Your task to perform on an android device: uninstall "Google Calendar" Image 0: 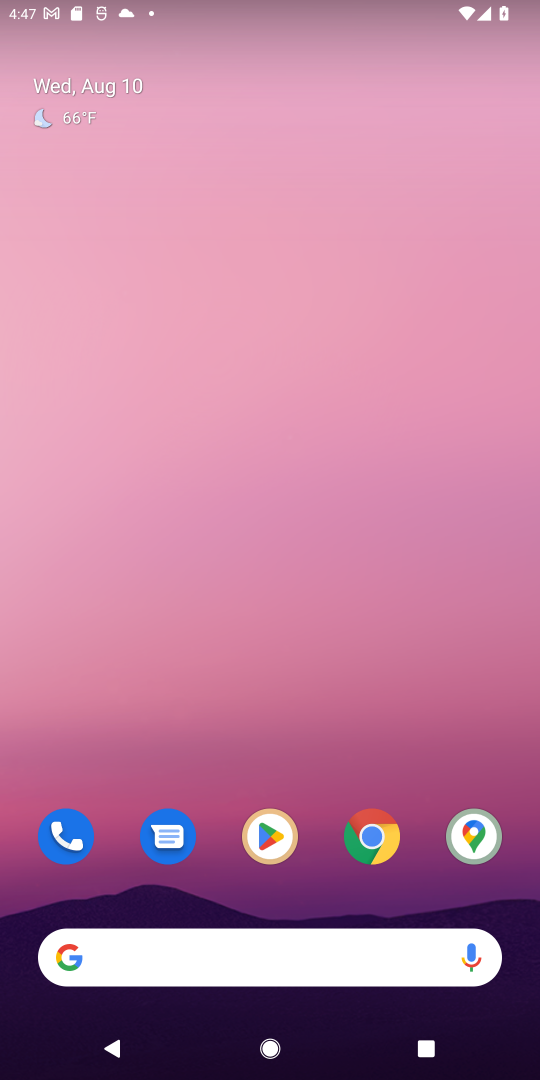
Step 0: drag from (304, 882) to (310, 220)
Your task to perform on an android device: uninstall "Google Calendar" Image 1: 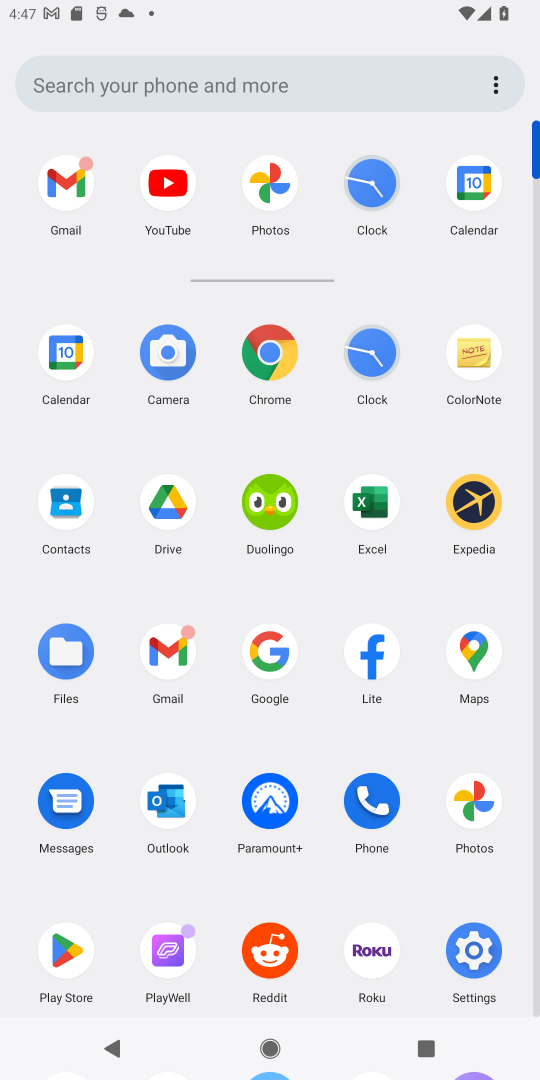
Step 1: click (74, 938)
Your task to perform on an android device: uninstall "Google Calendar" Image 2: 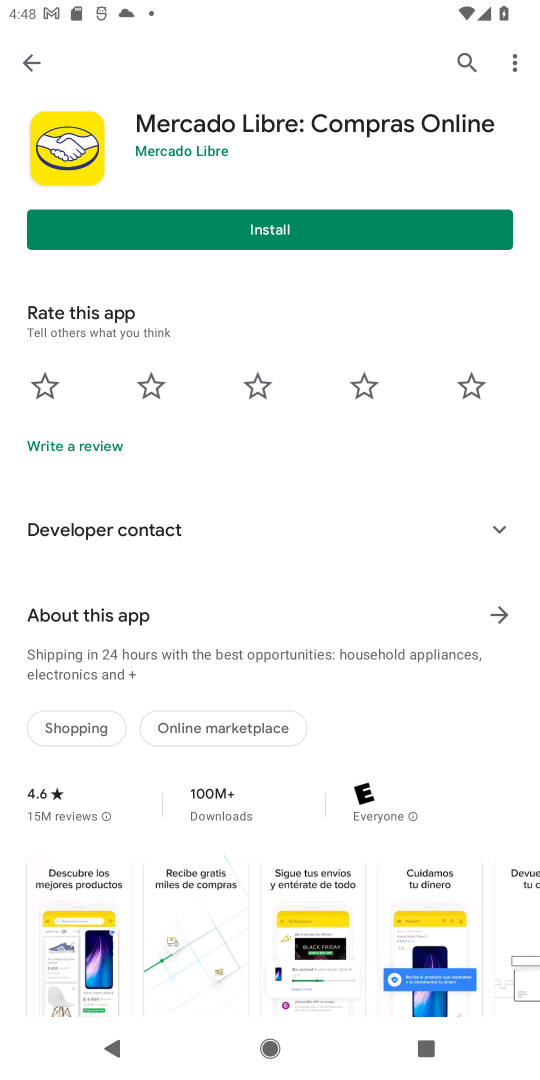
Step 2: click (35, 62)
Your task to perform on an android device: uninstall "Google Calendar" Image 3: 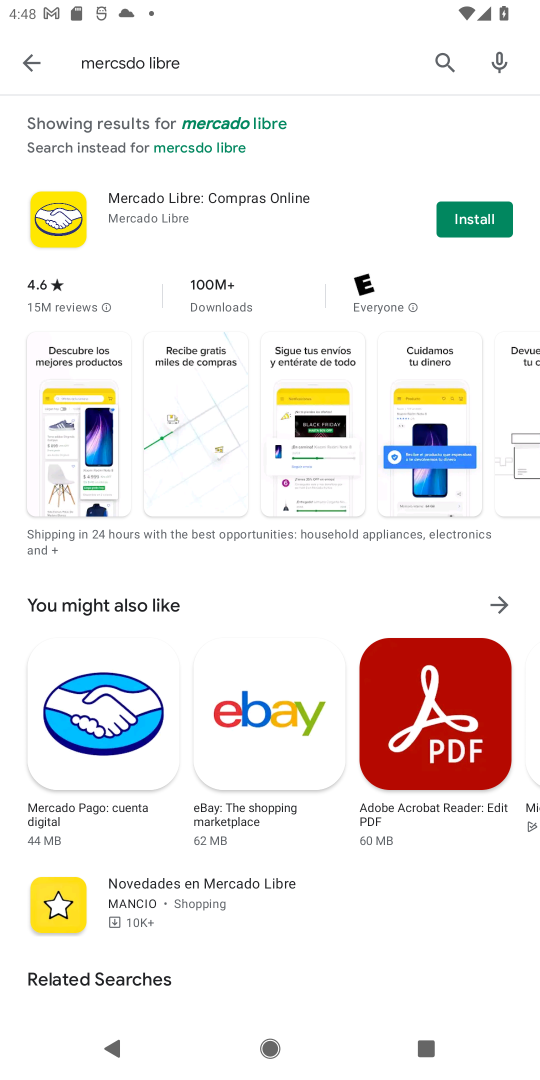
Step 3: click (39, 41)
Your task to perform on an android device: uninstall "Google Calendar" Image 4: 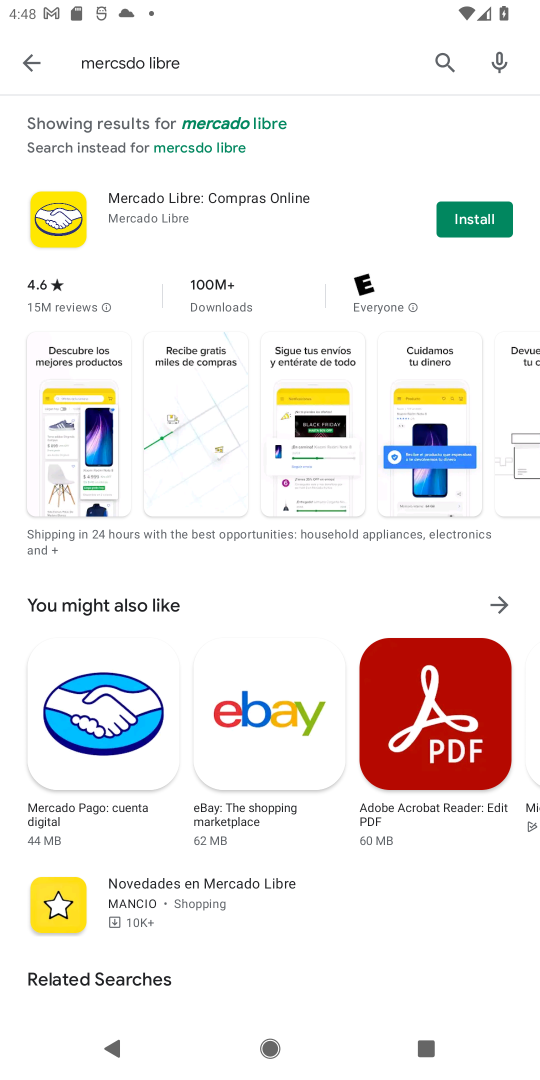
Step 4: click (49, 52)
Your task to perform on an android device: uninstall "Google Calendar" Image 5: 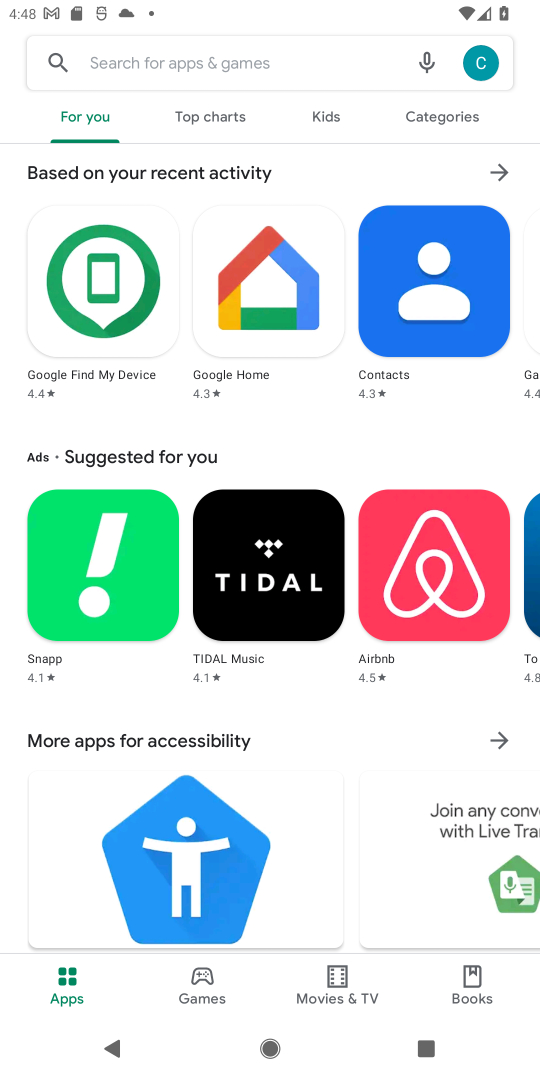
Step 5: click (197, 44)
Your task to perform on an android device: uninstall "Google Calendar" Image 6: 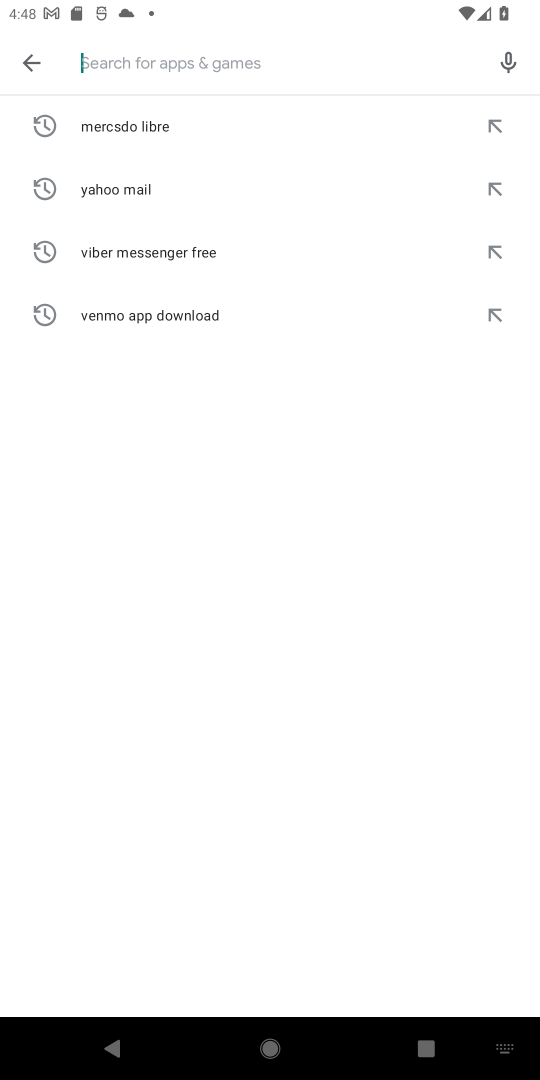
Step 6: type "Google Calenda "
Your task to perform on an android device: uninstall "Google Calendar" Image 7: 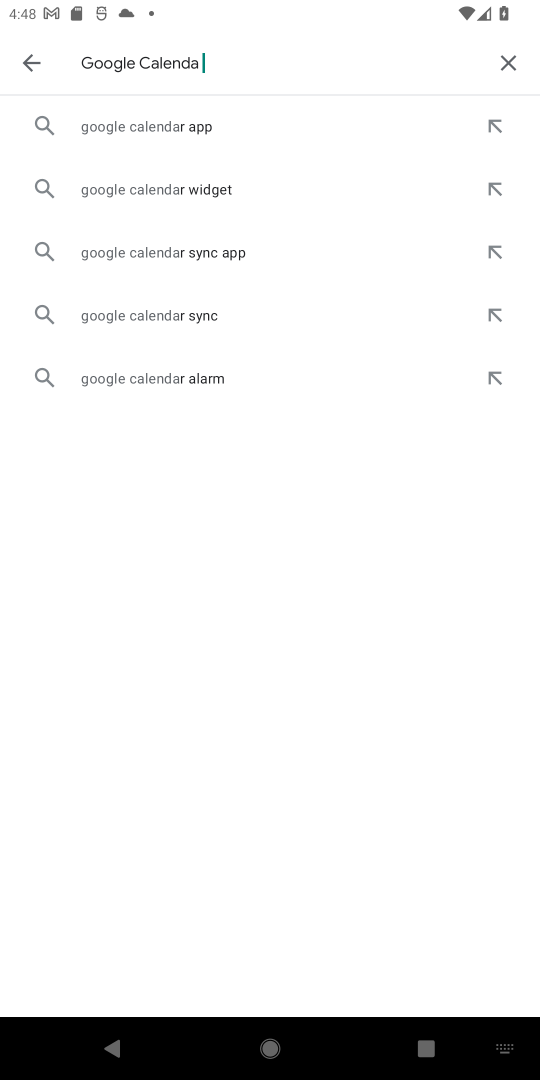
Step 7: click (129, 131)
Your task to perform on an android device: uninstall "Google Calendar" Image 8: 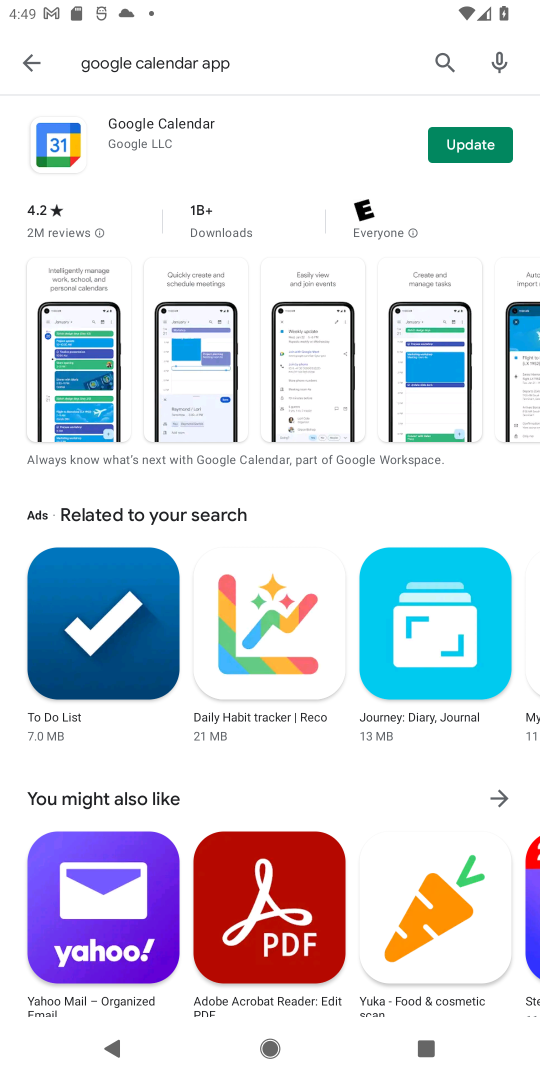
Step 8: click (235, 134)
Your task to perform on an android device: uninstall "Google Calendar" Image 9: 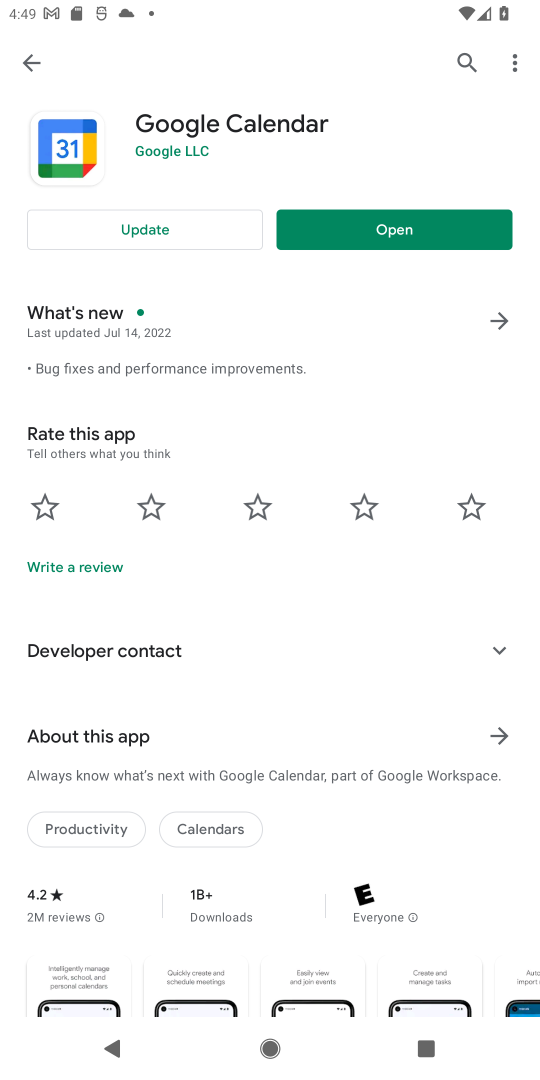
Step 9: drag from (312, 799) to (345, 344)
Your task to perform on an android device: uninstall "Google Calendar" Image 10: 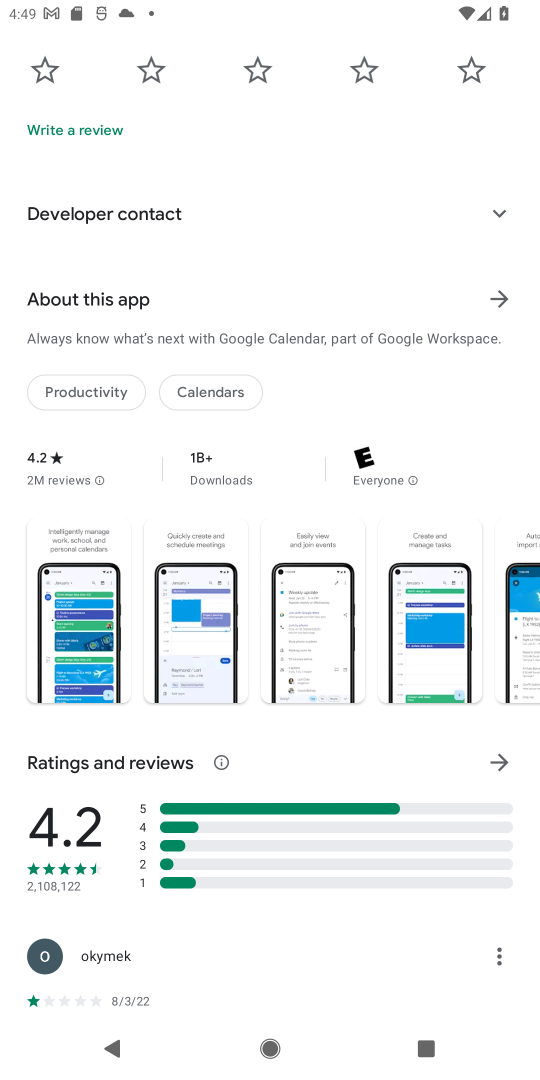
Step 10: drag from (284, 308) to (246, 705)
Your task to perform on an android device: uninstall "Google Calendar" Image 11: 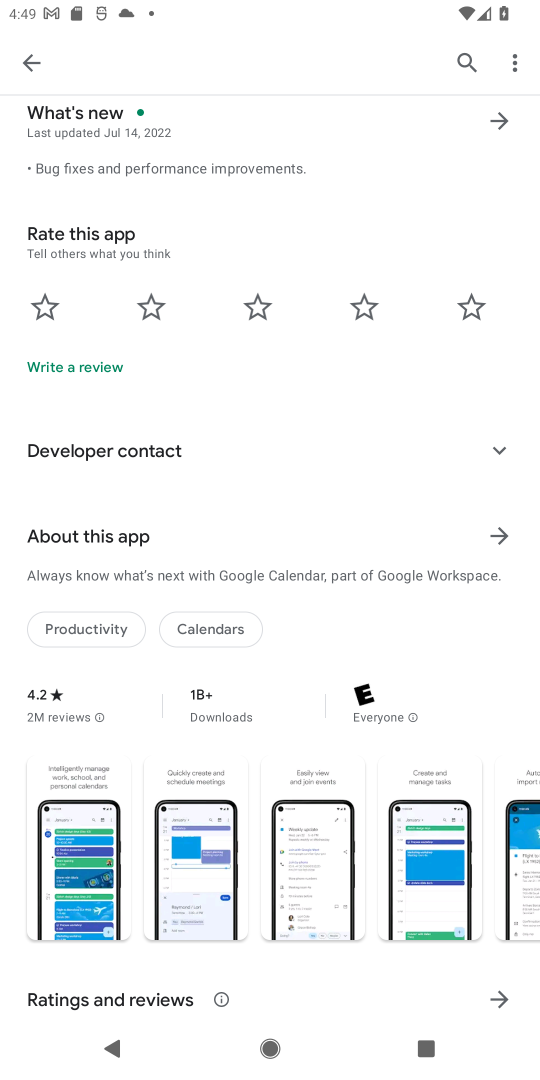
Step 11: drag from (208, 201) to (181, 649)
Your task to perform on an android device: uninstall "Google Calendar" Image 12: 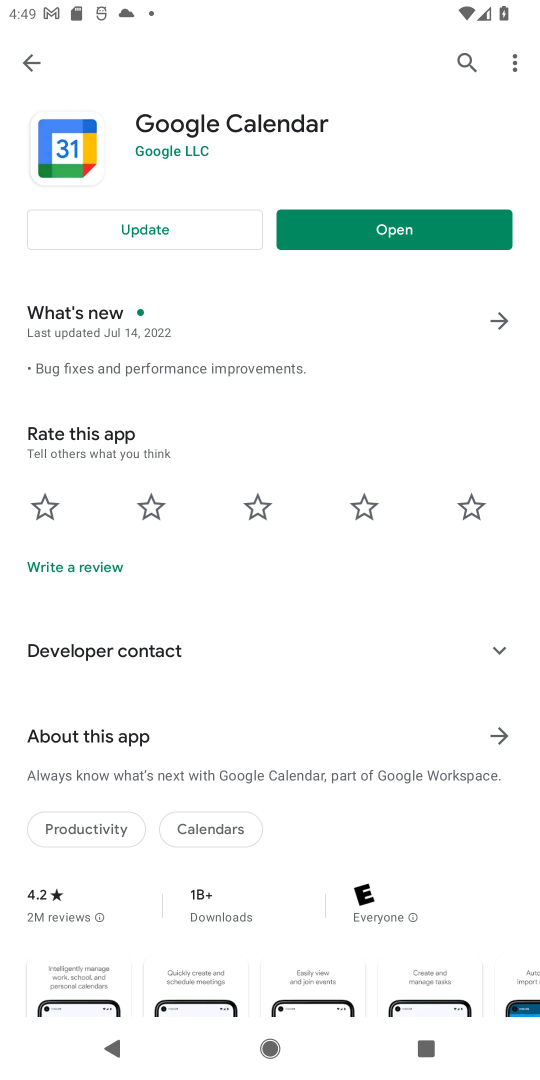
Step 12: click (175, 215)
Your task to perform on an android device: uninstall "Google Calendar" Image 13: 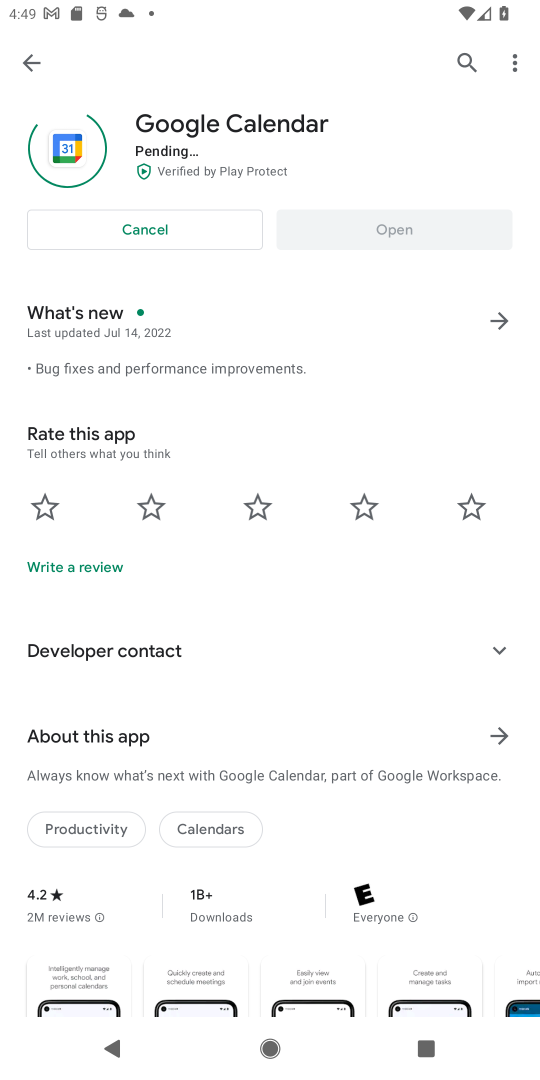
Step 13: click (510, 67)
Your task to perform on an android device: uninstall "Google Calendar" Image 14: 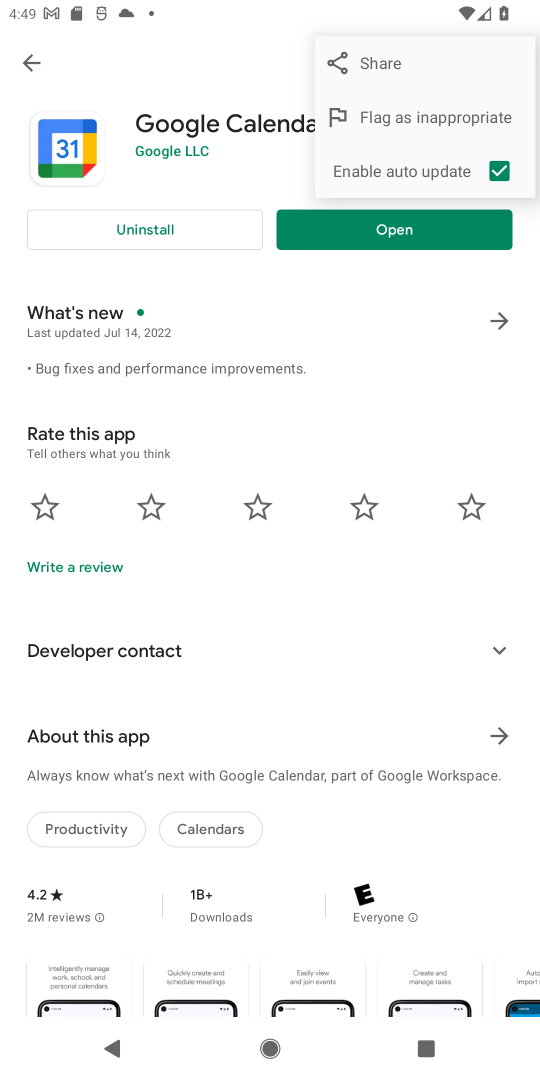
Step 14: click (182, 224)
Your task to perform on an android device: uninstall "Google Calendar" Image 15: 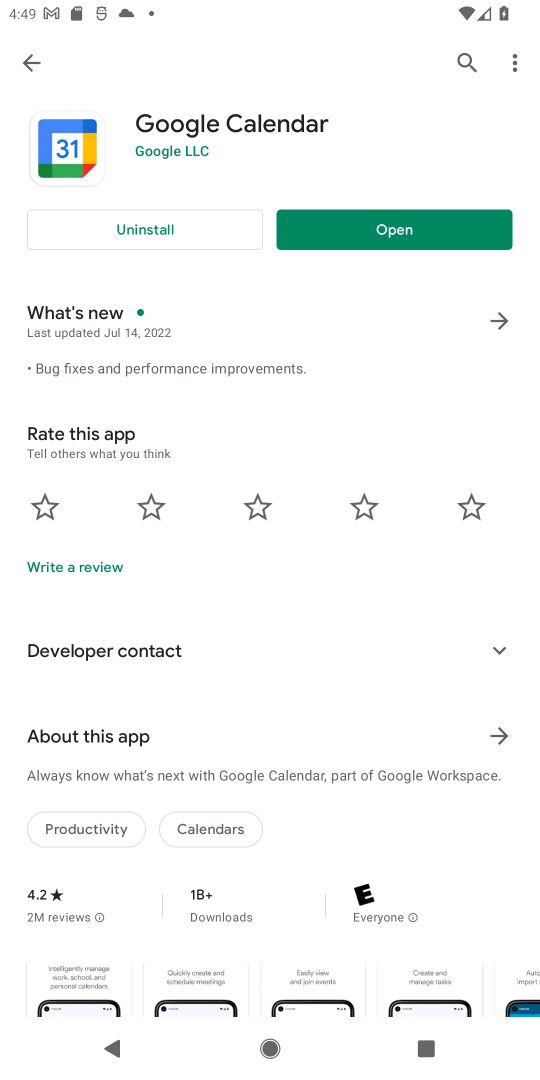
Step 15: click (157, 218)
Your task to perform on an android device: uninstall "Google Calendar" Image 16: 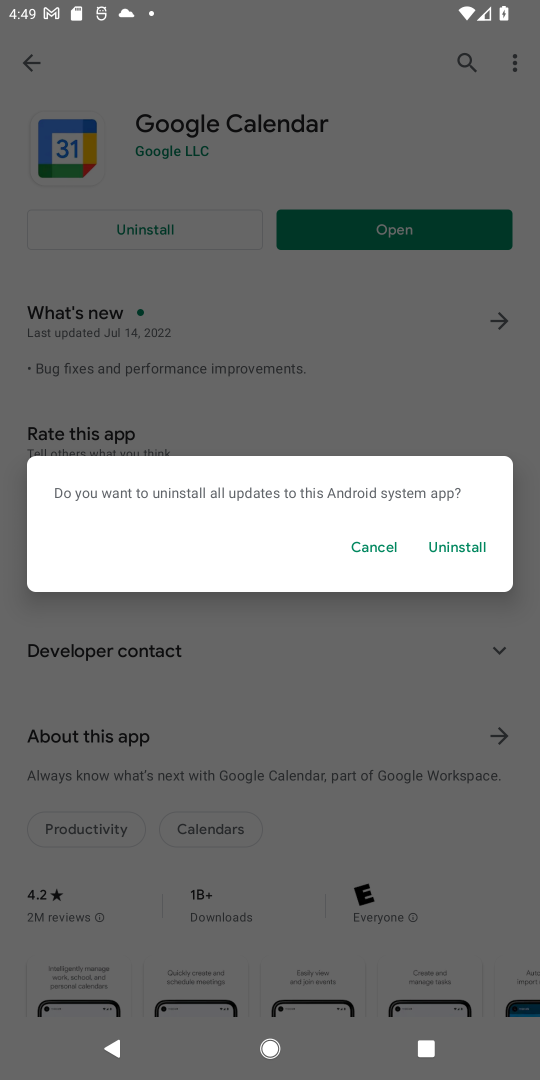
Step 16: click (448, 538)
Your task to perform on an android device: uninstall "Google Calendar" Image 17: 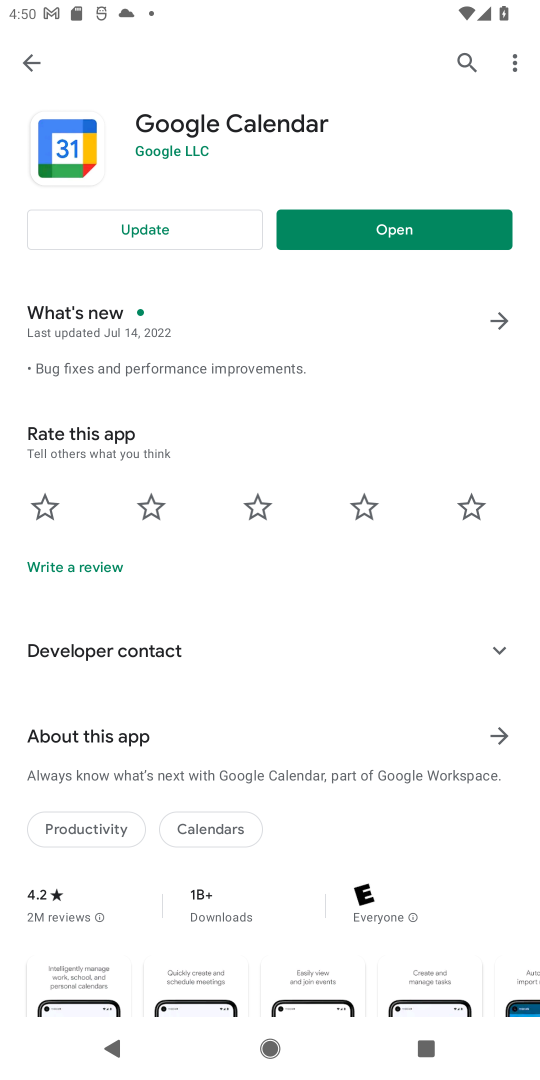
Step 17: task complete